Your task to perform on an android device: move an email to a new category in the gmail app Image 0: 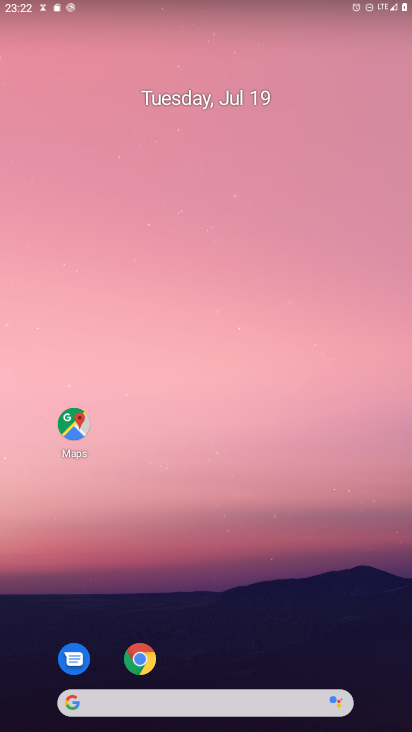
Step 0: drag from (216, 637) to (216, 289)
Your task to perform on an android device: move an email to a new category in the gmail app Image 1: 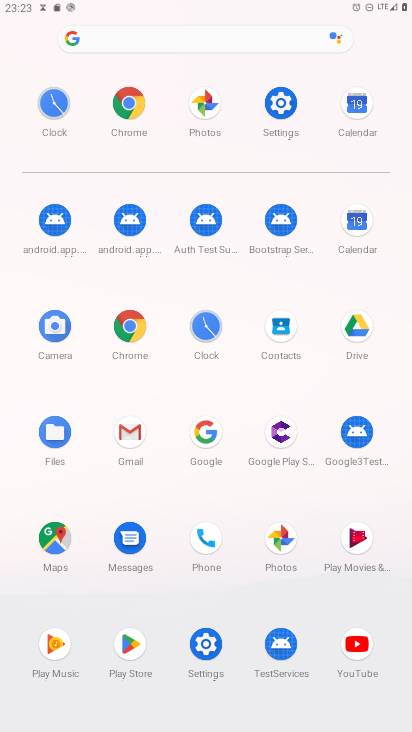
Step 1: click (142, 434)
Your task to perform on an android device: move an email to a new category in the gmail app Image 2: 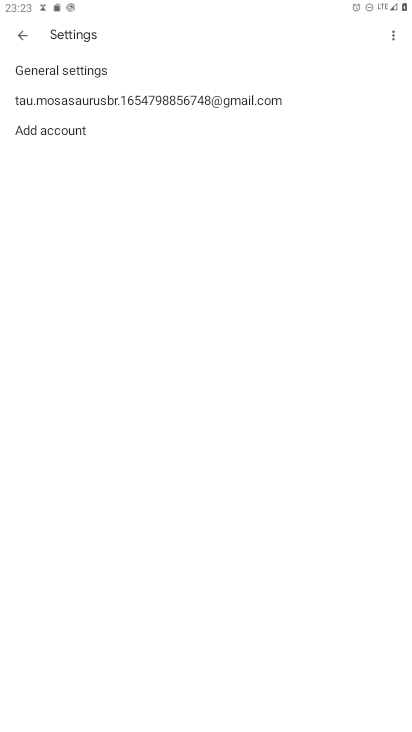
Step 2: click (102, 81)
Your task to perform on an android device: move an email to a new category in the gmail app Image 3: 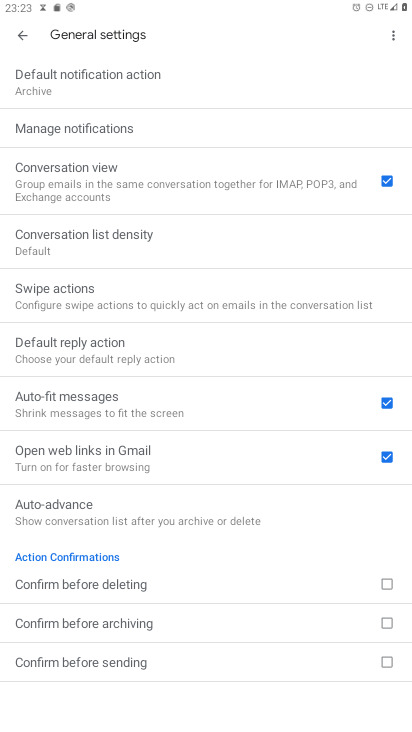
Step 3: click (33, 21)
Your task to perform on an android device: move an email to a new category in the gmail app Image 4: 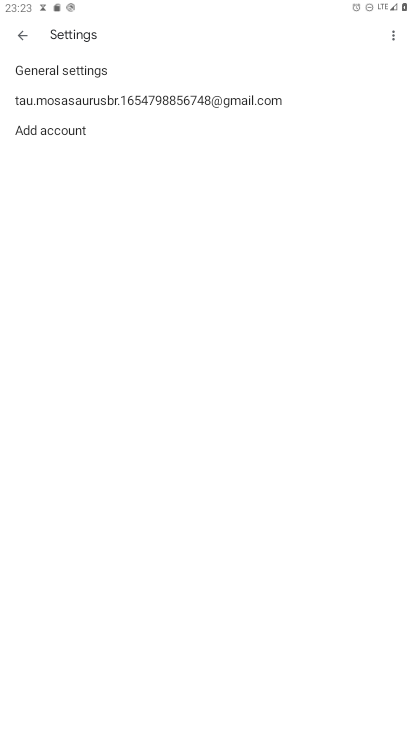
Step 4: click (26, 32)
Your task to perform on an android device: move an email to a new category in the gmail app Image 5: 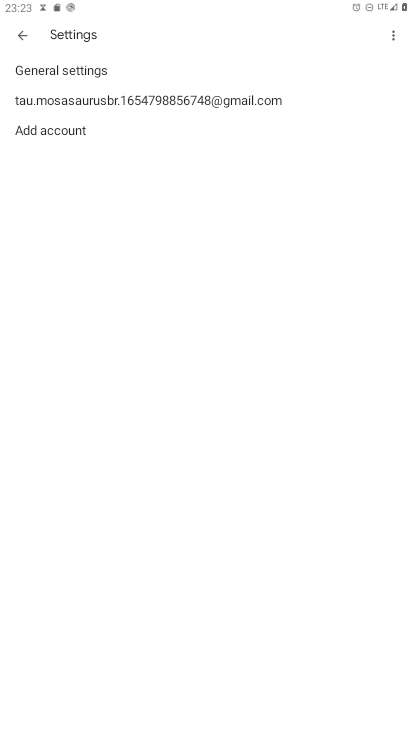
Step 5: click (26, 69)
Your task to perform on an android device: move an email to a new category in the gmail app Image 6: 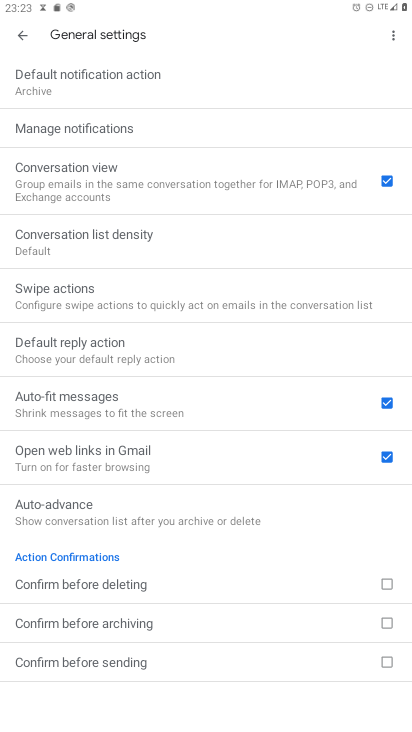
Step 6: click (27, 27)
Your task to perform on an android device: move an email to a new category in the gmail app Image 7: 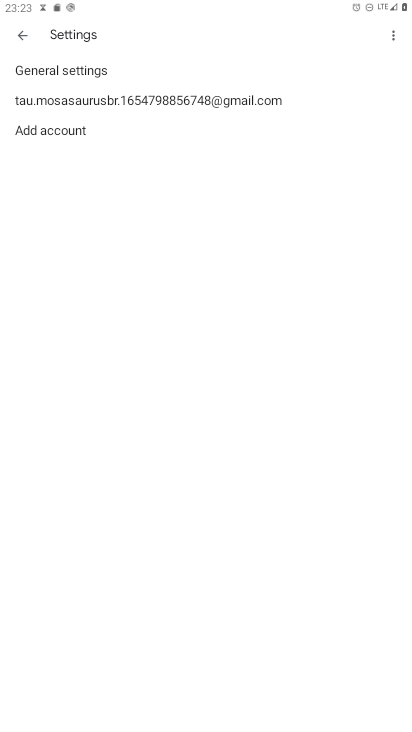
Step 7: click (79, 64)
Your task to perform on an android device: move an email to a new category in the gmail app Image 8: 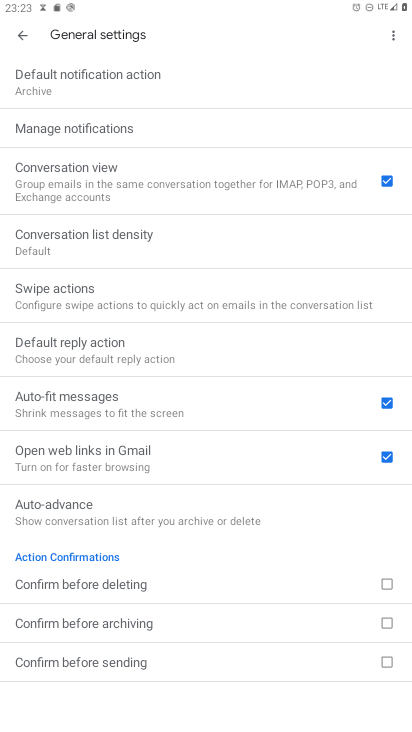
Step 8: click (22, 32)
Your task to perform on an android device: move an email to a new category in the gmail app Image 9: 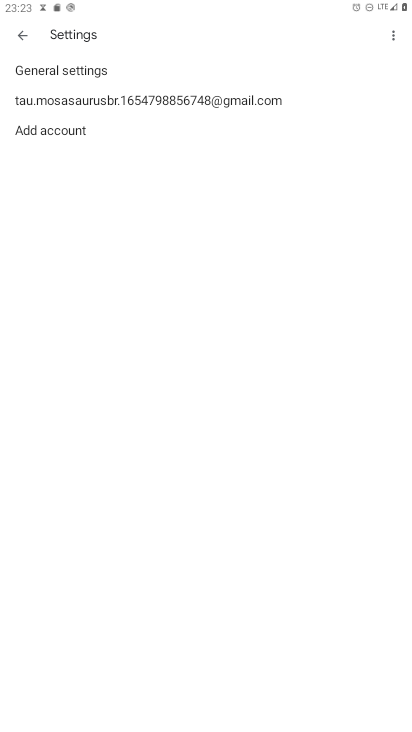
Step 9: task complete